Your task to perform on an android device: turn on priority inbox in the gmail app Image 0: 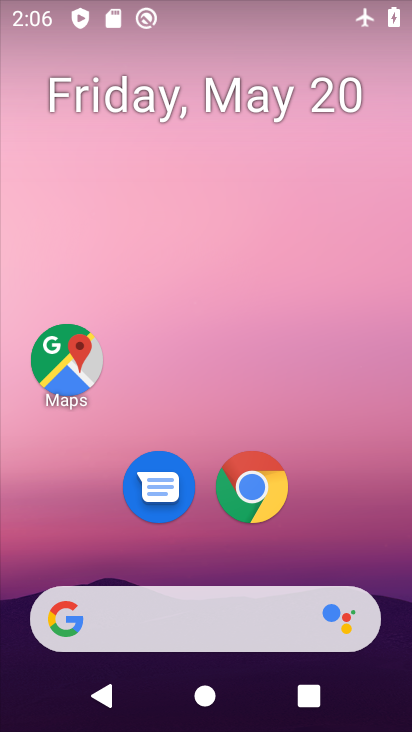
Step 0: drag from (348, 663) to (156, 4)
Your task to perform on an android device: turn on priority inbox in the gmail app Image 1: 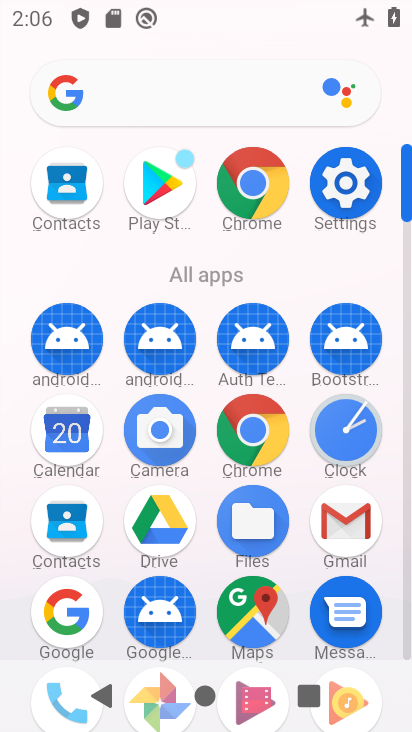
Step 1: click (355, 532)
Your task to perform on an android device: turn on priority inbox in the gmail app Image 2: 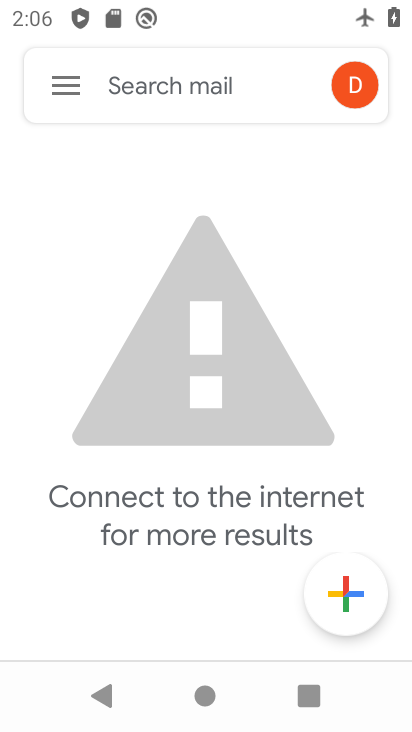
Step 2: click (71, 91)
Your task to perform on an android device: turn on priority inbox in the gmail app Image 3: 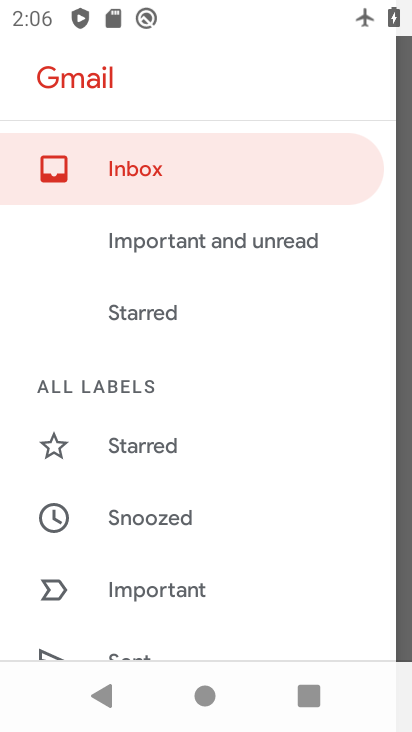
Step 3: drag from (165, 234) to (197, 127)
Your task to perform on an android device: turn on priority inbox in the gmail app Image 4: 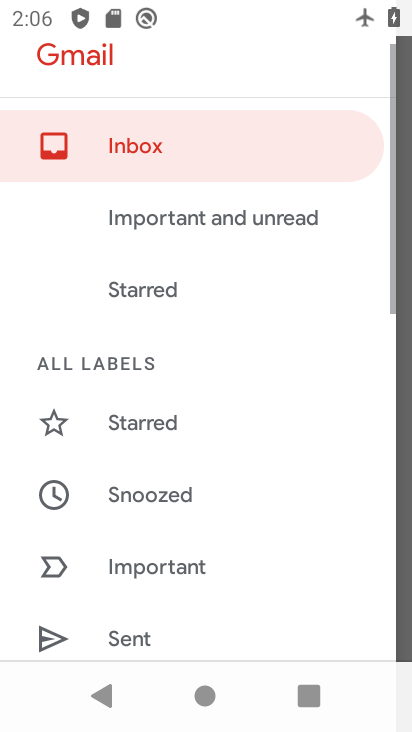
Step 4: click (177, 131)
Your task to perform on an android device: turn on priority inbox in the gmail app Image 5: 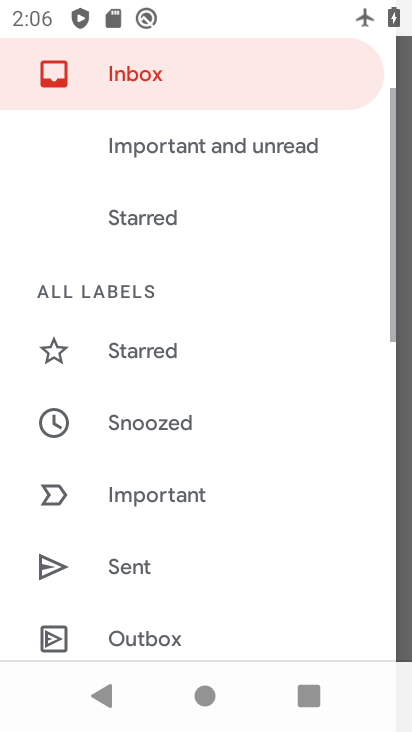
Step 5: drag from (141, 124) to (184, 115)
Your task to perform on an android device: turn on priority inbox in the gmail app Image 6: 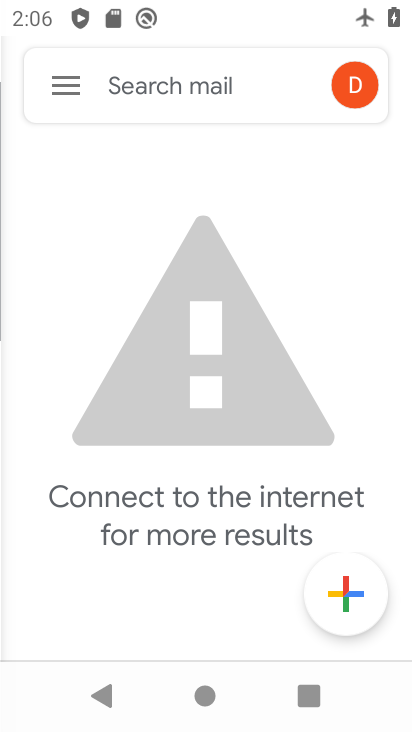
Step 6: drag from (139, 339) to (135, 41)
Your task to perform on an android device: turn on priority inbox in the gmail app Image 7: 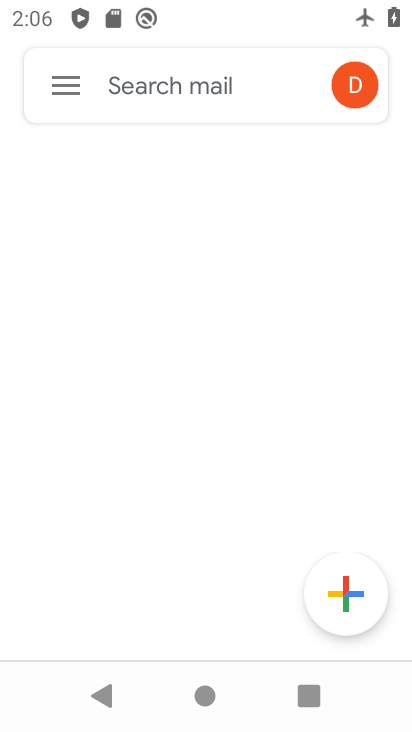
Step 7: click (142, 39)
Your task to perform on an android device: turn on priority inbox in the gmail app Image 8: 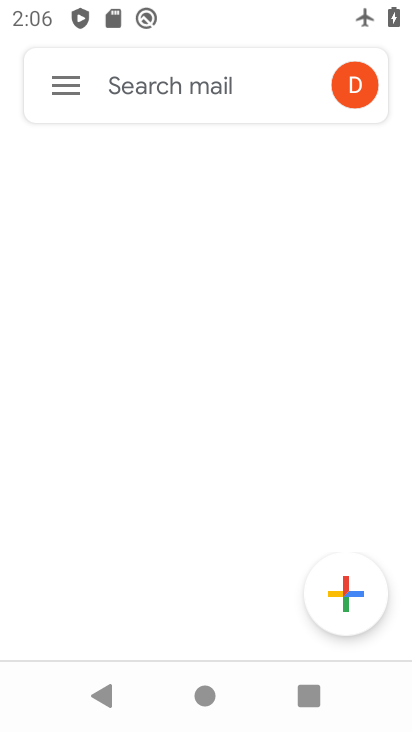
Step 8: drag from (153, 184) to (153, 64)
Your task to perform on an android device: turn on priority inbox in the gmail app Image 9: 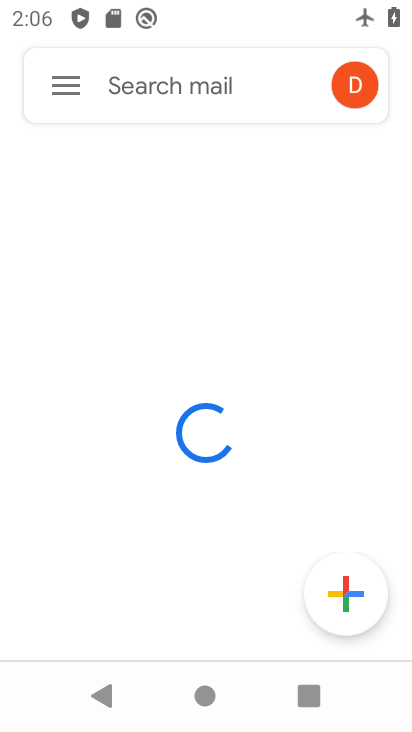
Step 9: click (52, 88)
Your task to perform on an android device: turn on priority inbox in the gmail app Image 10: 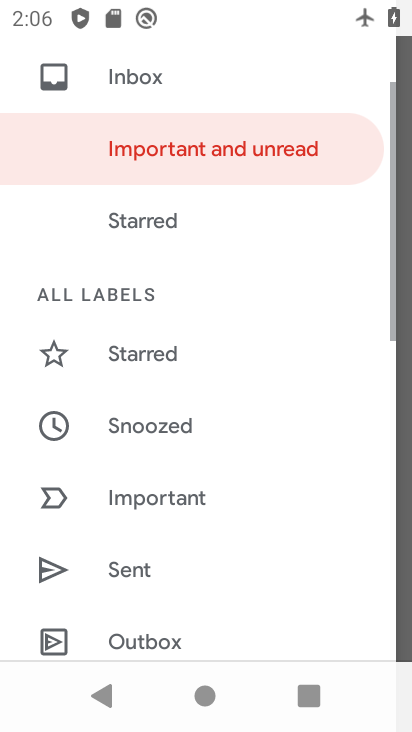
Step 10: drag from (127, 579) to (135, 223)
Your task to perform on an android device: turn on priority inbox in the gmail app Image 11: 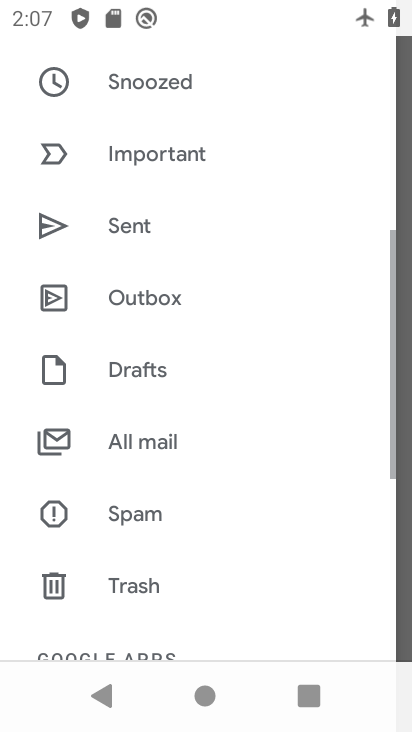
Step 11: drag from (194, 477) to (220, 129)
Your task to perform on an android device: turn on priority inbox in the gmail app Image 12: 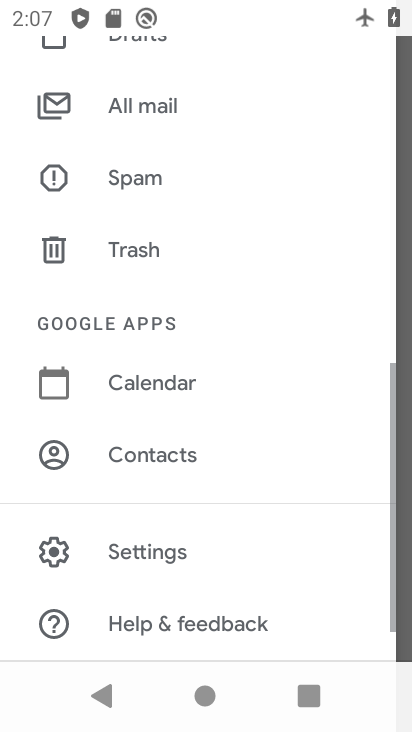
Step 12: drag from (198, 469) to (201, 120)
Your task to perform on an android device: turn on priority inbox in the gmail app Image 13: 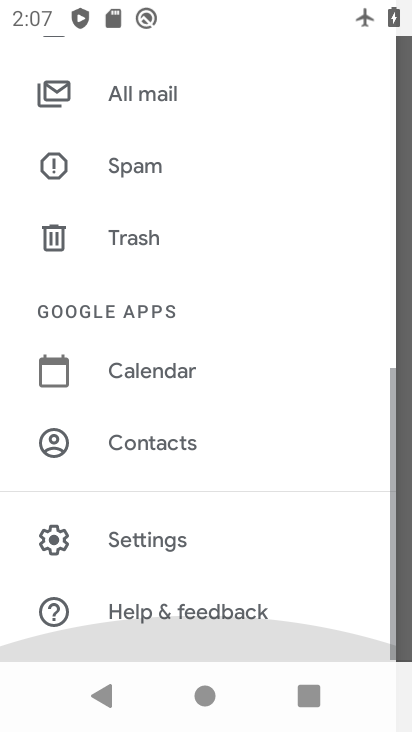
Step 13: drag from (231, 566) to (221, 168)
Your task to perform on an android device: turn on priority inbox in the gmail app Image 14: 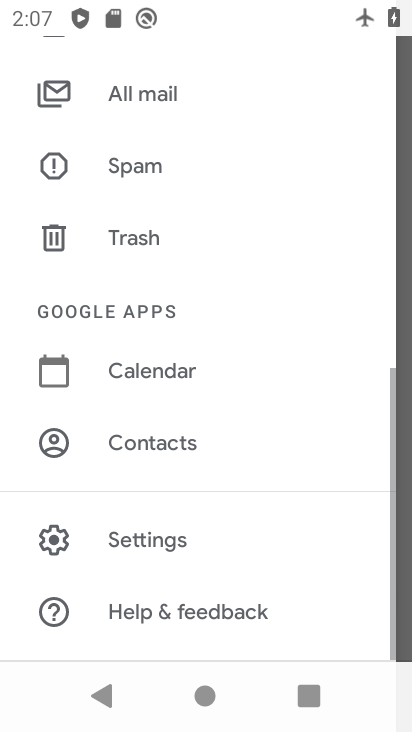
Step 14: click (142, 529)
Your task to perform on an android device: turn on priority inbox in the gmail app Image 15: 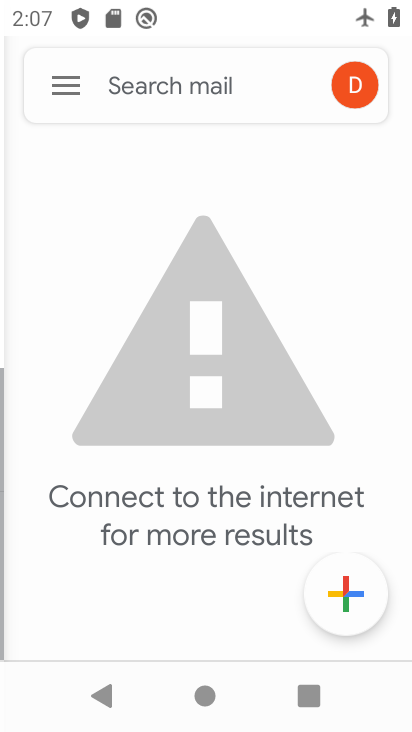
Step 15: click (143, 542)
Your task to perform on an android device: turn on priority inbox in the gmail app Image 16: 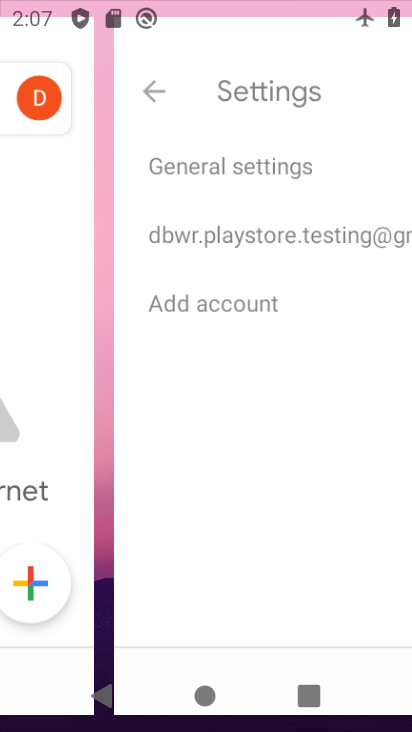
Step 16: click (143, 542)
Your task to perform on an android device: turn on priority inbox in the gmail app Image 17: 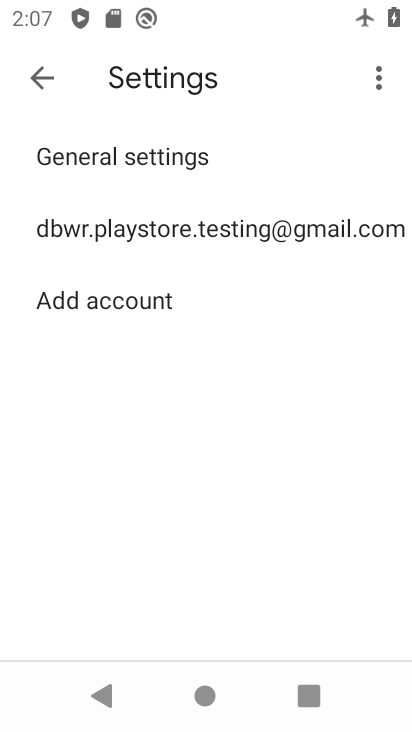
Step 17: click (148, 216)
Your task to perform on an android device: turn on priority inbox in the gmail app Image 18: 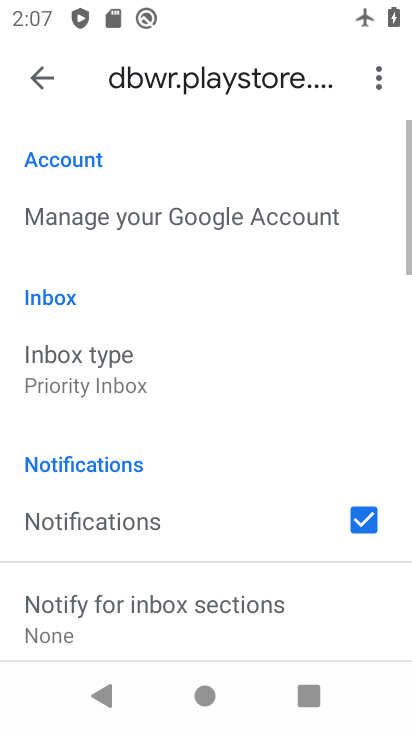
Step 18: click (161, 229)
Your task to perform on an android device: turn on priority inbox in the gmail app Image 19: 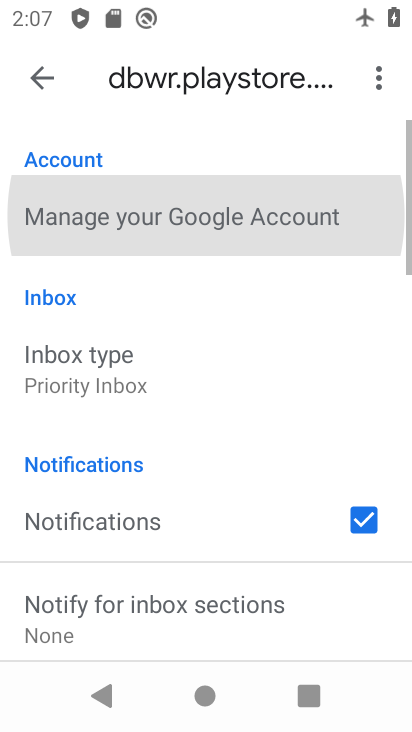
Step 19: click (163, 227)
Your task to perform on an android device: turn on priority inbox in the gmail app Image 20: 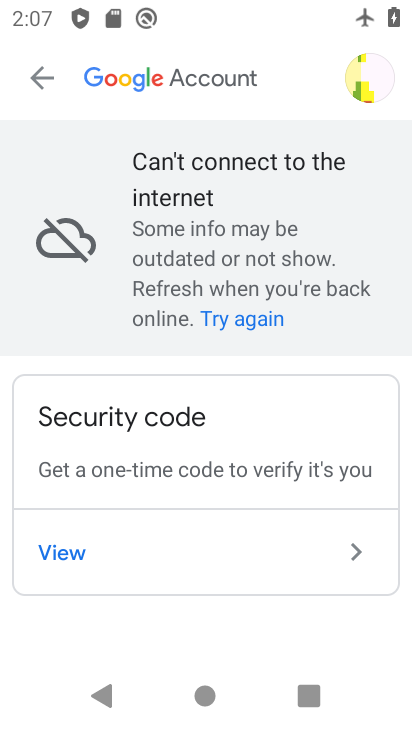
Step 20: task complete